Your task to perform on an android device: toggle improve location accuracy Image 0: 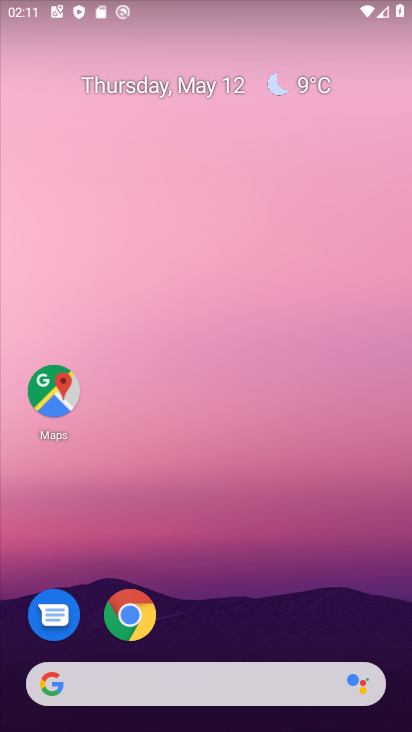
Step 0: drag from (213, 670) to (183, 22)
Your task to perform on an android device: toggle improve location accuracy Image 1: 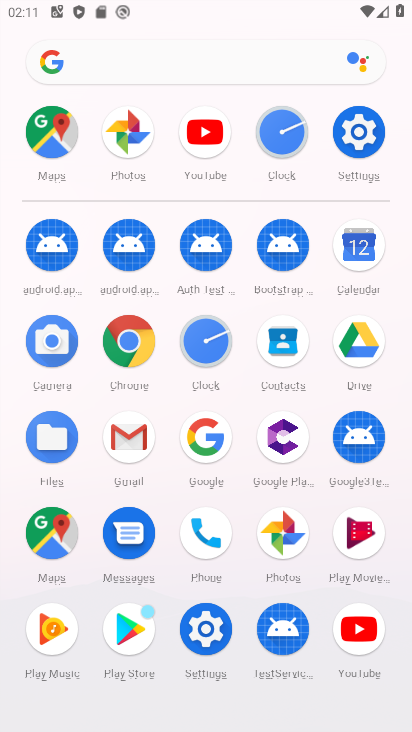
Step 1: click (215, 638)
Your task to perform on an android device: toggle improve location accuracy Image 2: 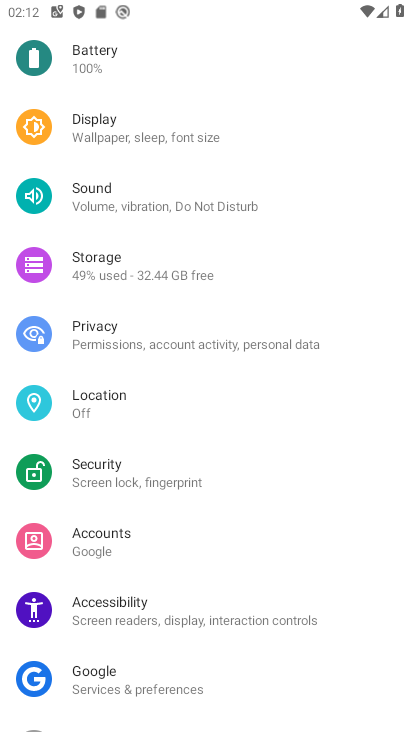
Step 2: click (89, 416)
Your task to perform on an android device: toggle improve location accuracy Image 3: 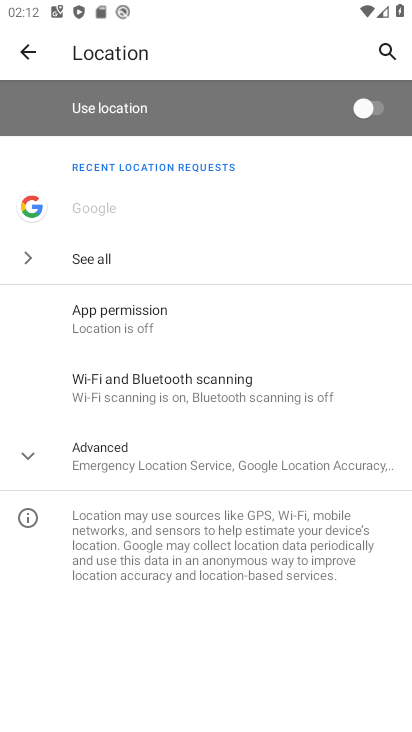
Step 3: click (369, 101)
Your task to perform on an android device: toggle improve location accuracy Image 4: 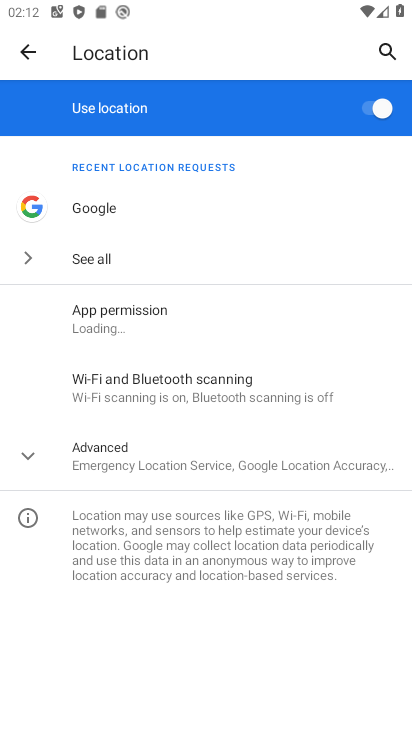
Step 4: click (99, 457)
Your task to perform on an android device: toggle improve location accuracy Image 5: 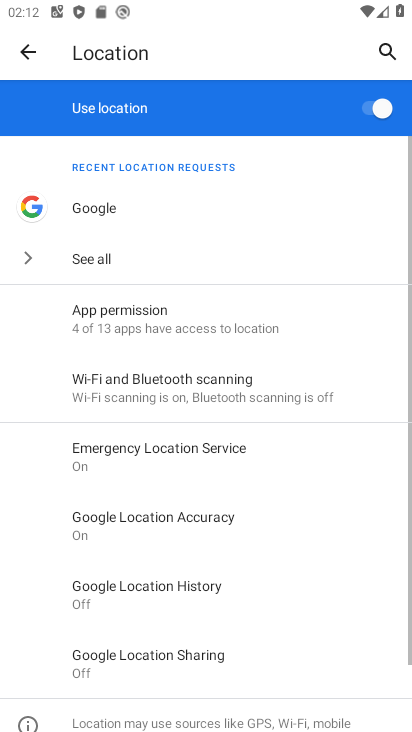
Step 5: click (208, 527)
Your task to perform on an android device: toggle improve location accuracy Image 6: 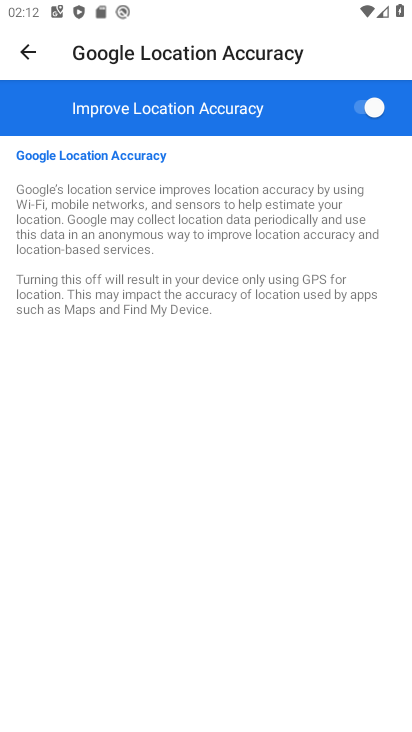
Step 6: click (371, 119)
Your task to perform on an android device: toggle improve location accuracy Image 7: 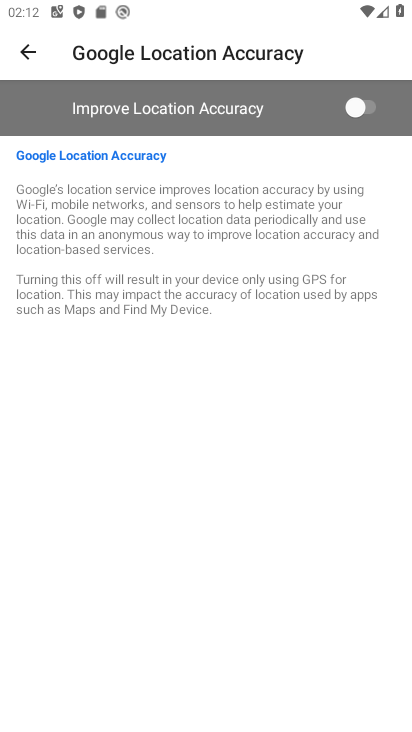
Step 7: task complete